Your task to perform on an android device: toggle notifications settings in the gmail app Image 0: 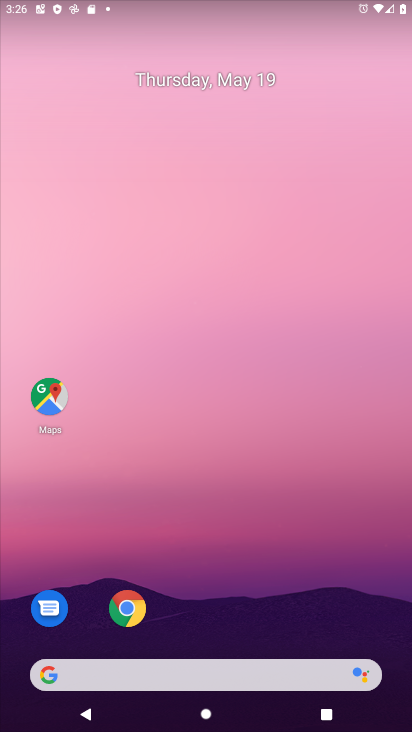
Step 0: drag from (375, 630) to (226, 213)
Your task to perform on an android device: toggle notifications settings in the gmail app Image 1: 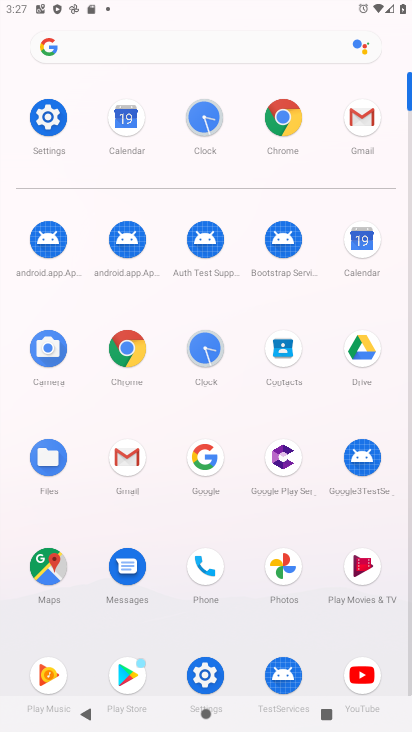
Step 1: click (374, 123)
Your task to perform on an android device: toggle notifications settings in the gmail app Image 2: 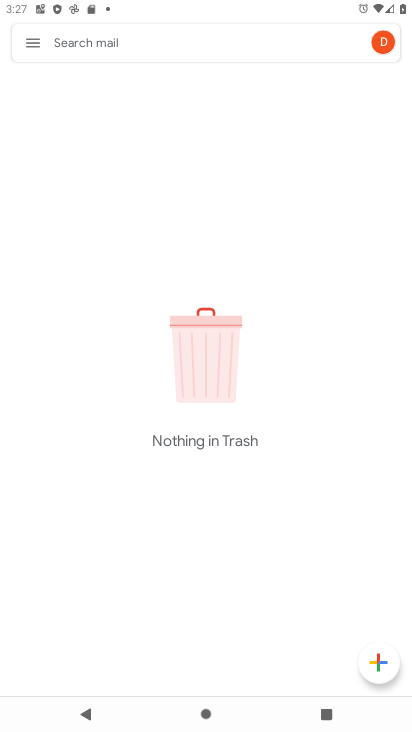
Step 2: click (16, 54)
Your task to perform on an android device: toggle notifications settings in the gmail app Image 3: 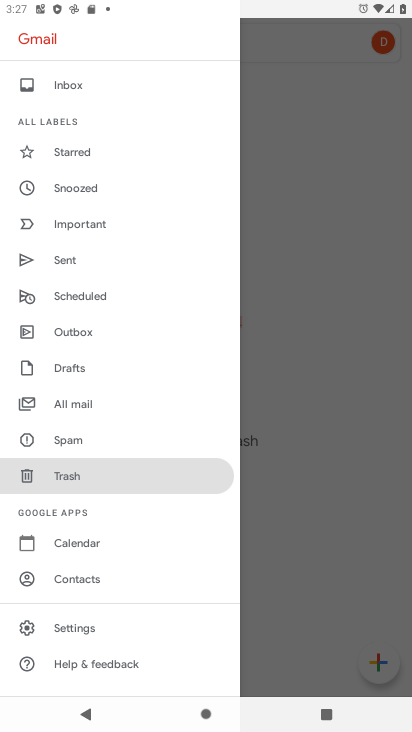
Step 3: click (166, 622)
Your task to perform on an android device: toggle notifications settings in the gmail app Image 4: 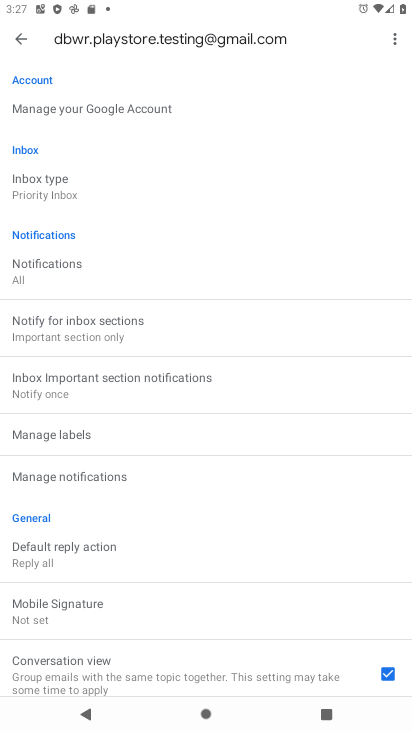
Step 4: drag from (166, 622) to (142, 488)
Your task to perform on an android device: toggle notifications settings in the gmail app Image 5: 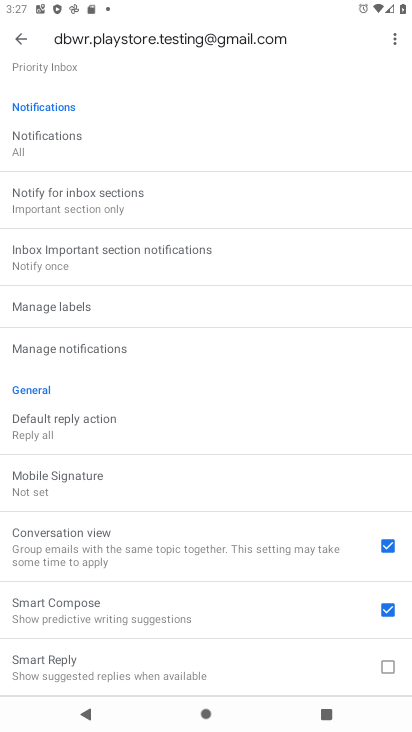
Step 5: click (111, 376)
Your task to perform on an android device: toggle notifications settings in the gmail app Image 6: 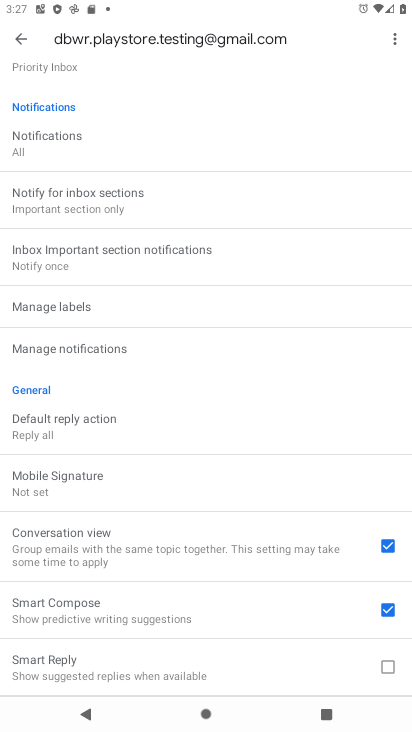
Step 6: task complete